Your task to perform on an android device: Open ESPN.com Image 0: 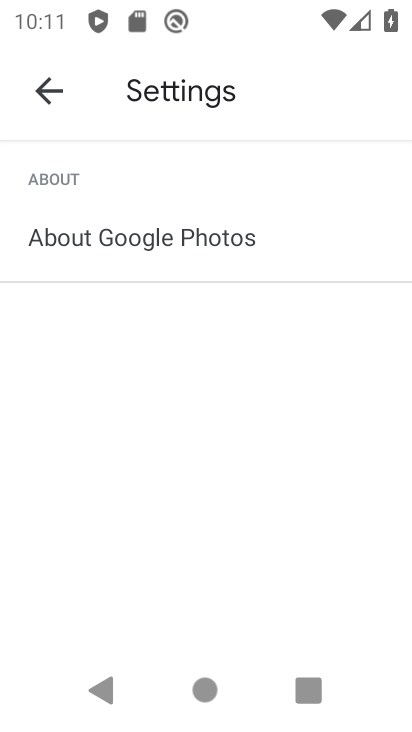
Step 0: press home button
Your task to perform on an android device: Open ESPN.com Image 1: 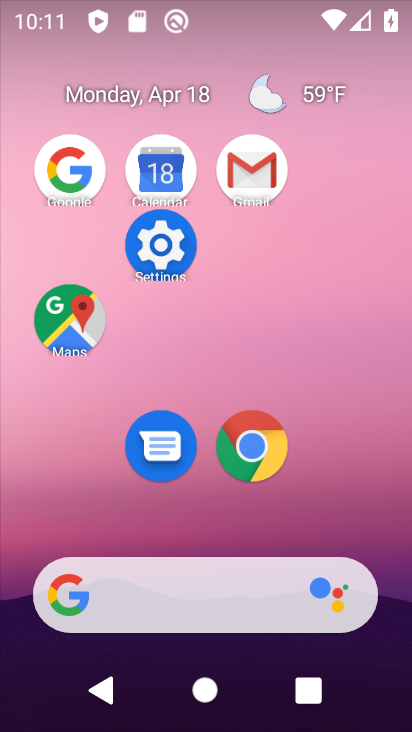
Step 1: click (244, 456)
Your task to perform on an android device: Open ESPN.com Image 2: 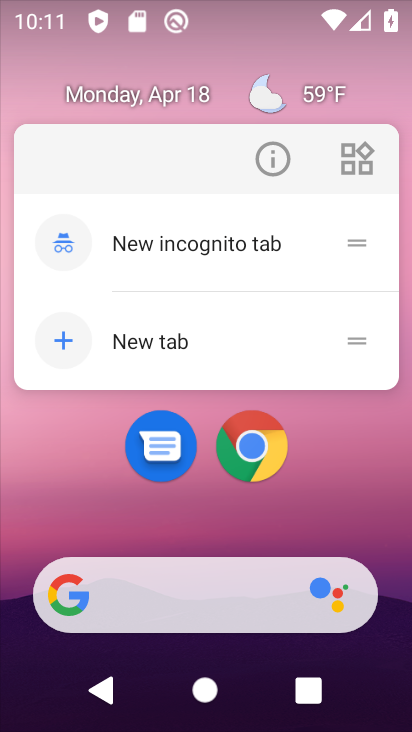
Step 2: click (258, 445)
Your task to perform on an android device: Open ESPN.com Image 3: 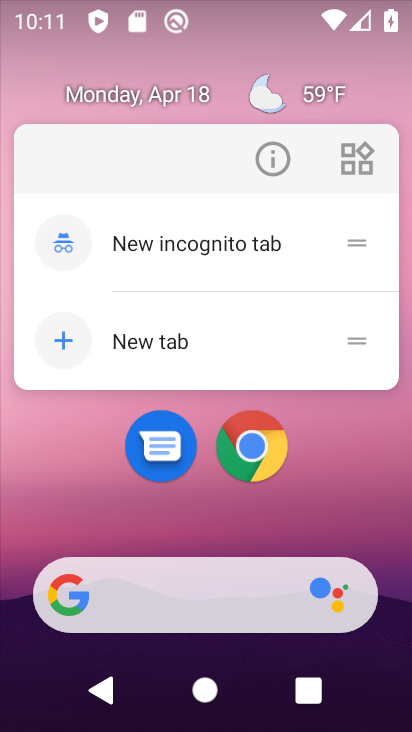
Step 3: click (258, 445)
Your task to perform on an android device: Open ESPN.com Image 4: 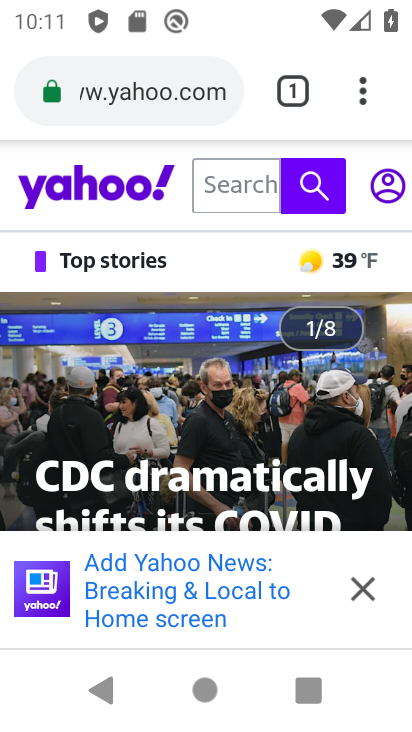
Step 4: click (279, 78)
Your task to perform on an android device: Open ESPN.com Image 5: 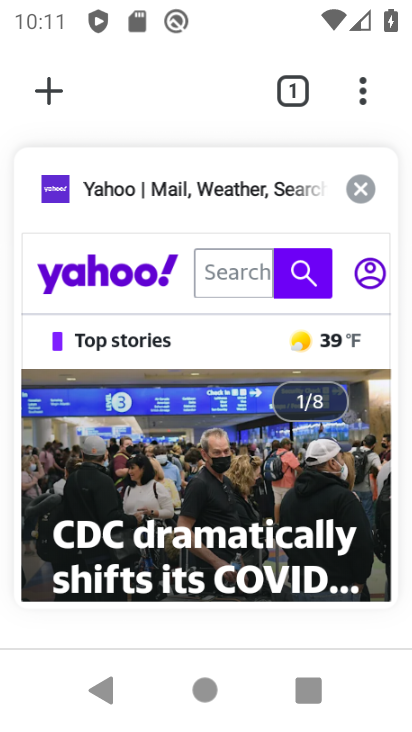
Step 5: click (53, 78)
Your task to perform on an android device: Open ESPN.com Image 6: 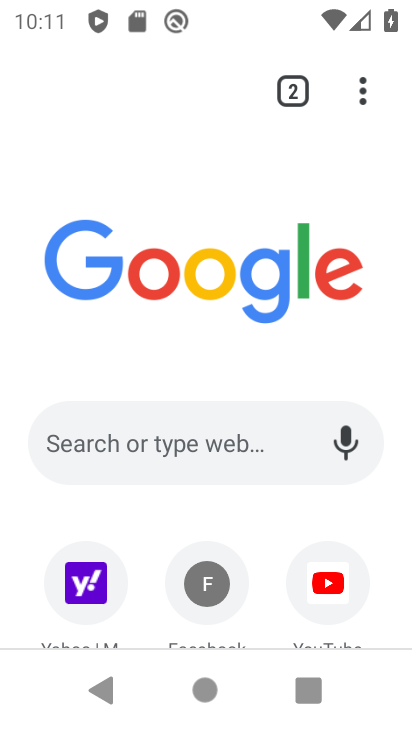
Step 6: drag from (227, 512) to (250, 161)
Your task to perform on an android device: Open ESPN.com Image 7: 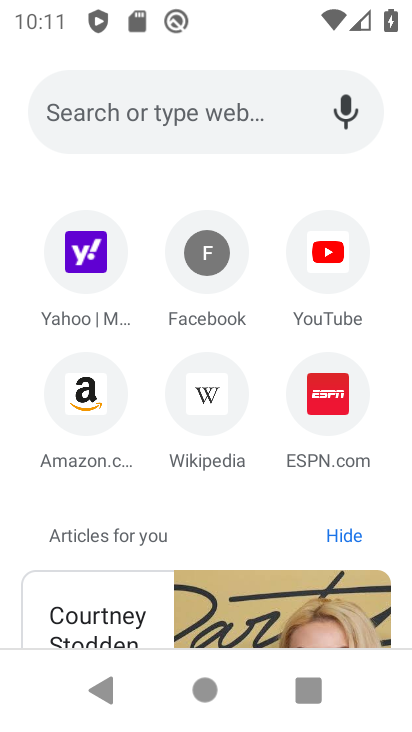
Step 7: click (332, 382)
Your task to perform on an android device: Open ESPN.com Image 8: 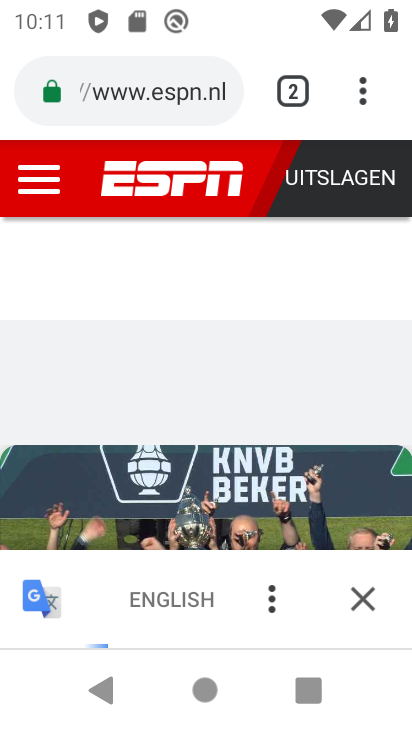
Step 8: task complete